Your task to perform on an android device: toggle show notifications on the lock screen Image 0: 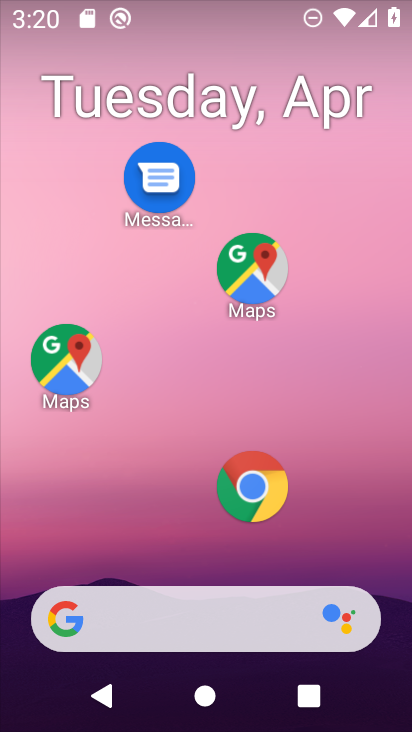
Step 0: drag from (207, 459) to (271, 238)
Your task to perform on an android device: toggle show notifications on the lock screen Image 1: 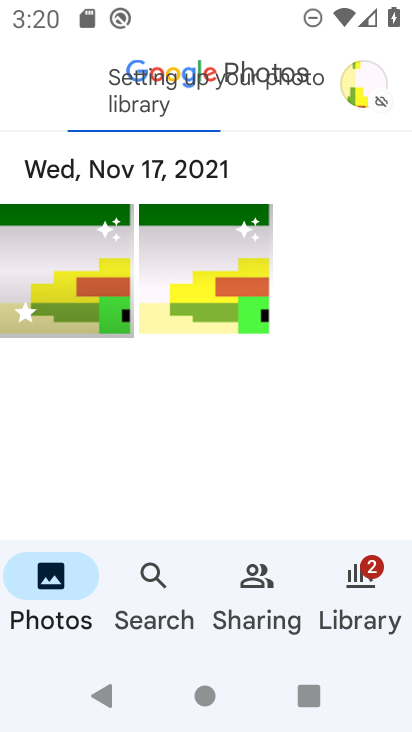
Step 1: press home button
Your task to perform on an android device: toggle show notifications on the lock screen Image 2: 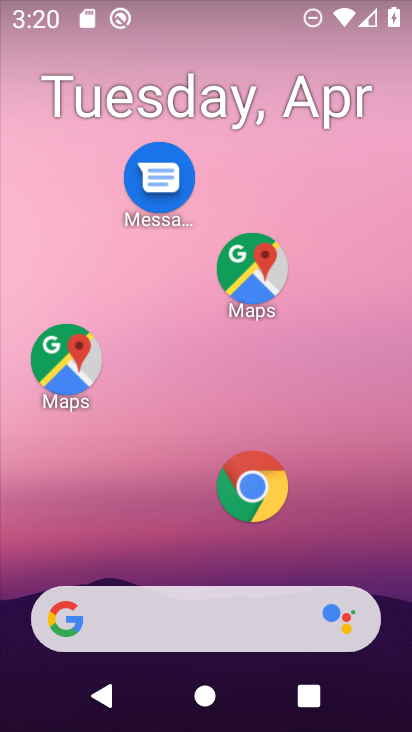
Step 2: drag from (211, 528) to (278, 113)
Your task to perform on an android device: toggle show notifications on the lock screen Image 3: 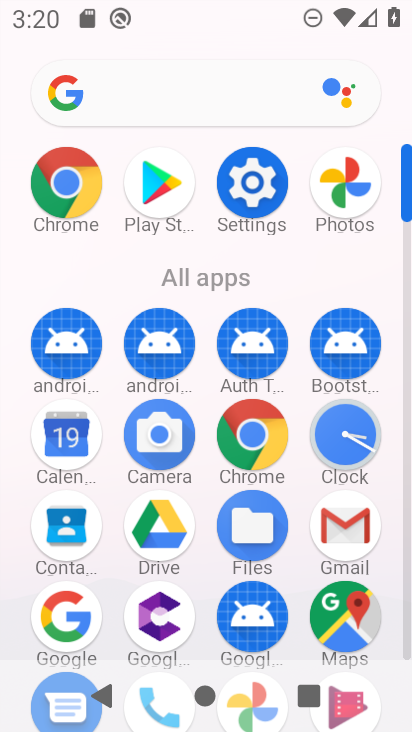
Step 3: click (262, 208)
Your task to perform on an android device: toggle show notifications on the lock screen Image 4: 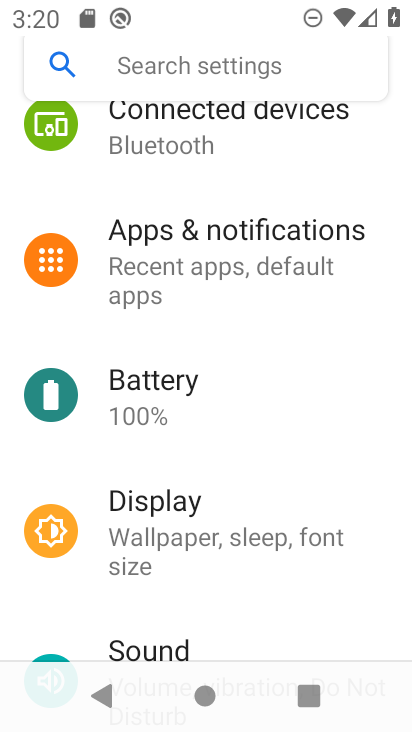
Step 4: click (235, 271)
Your task to perform on an android device: toggle show notifications on the lock screen Image 5: 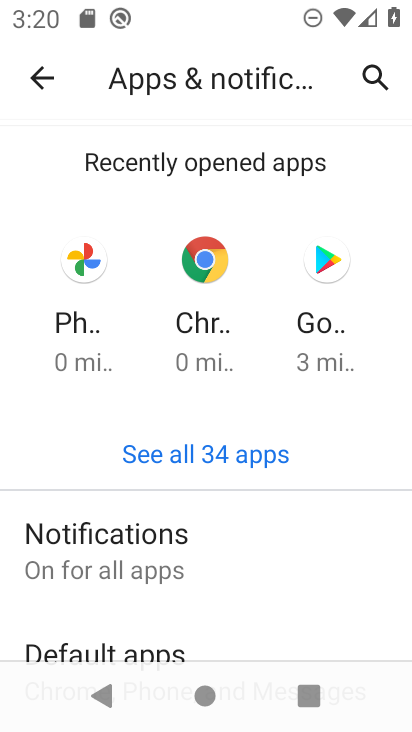
Step 5: drag from (160, 585) to (181, 304)
Your task to perform on an android device: toggle show notifications on the lock screen Image 6: 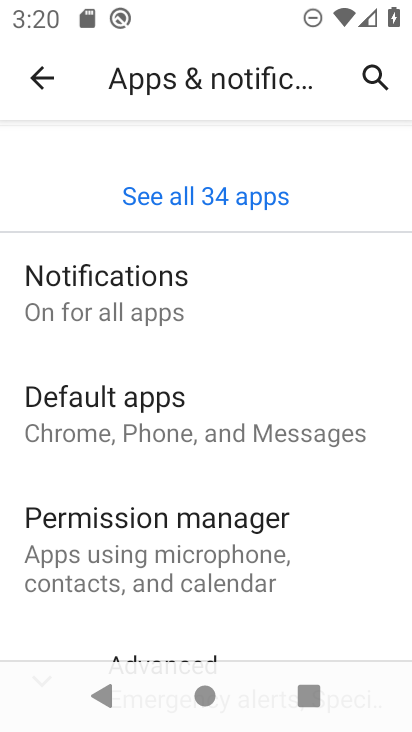
Step 6: click (195, 306)
Your task to perform on an android device: toggle show notifications on the lock screen Image 7: 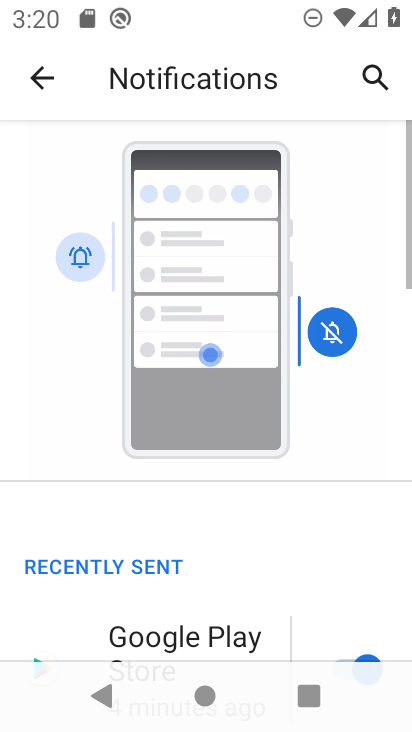
Step 7: drag from (220, 559) to (192, 108)
Your task to perform on an android device: toggle show notifications on the lock screen Image 8: 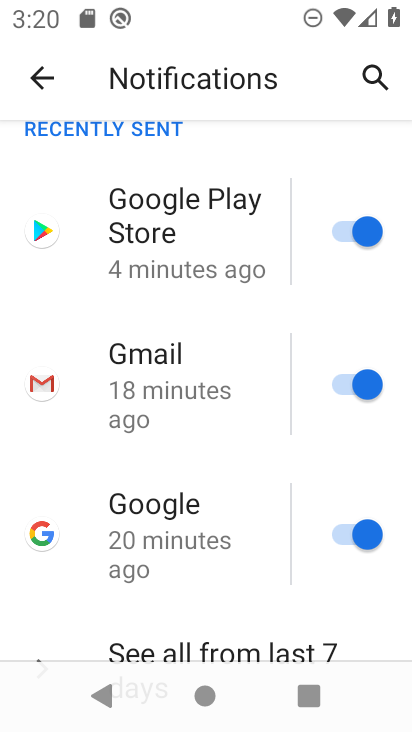
Step 8: drag from (224, 553) to (228, 115)
Your task to perform on an android device: toggle show notifications on the lock screen Image 9: 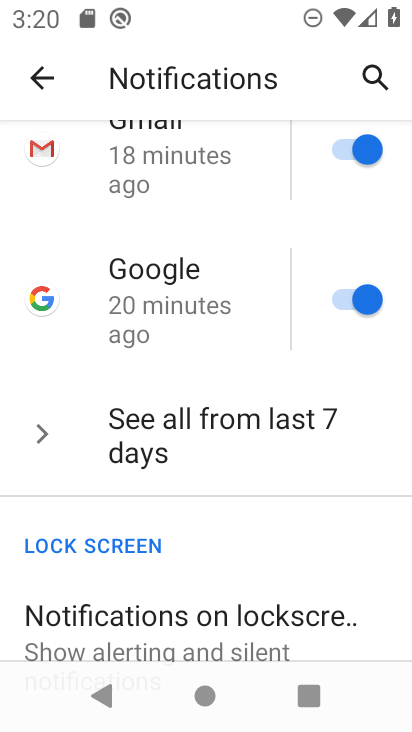
Step 9: drag from (205, 610) to (202, 268)
Your task to perform on an android device: toggle show notifications on the lock screen Image 10: 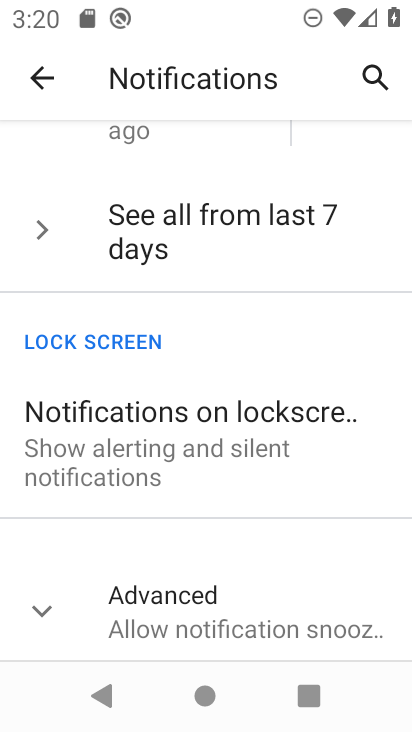
Step 10: click (198, 448)
Your task to perform on an android device: toggle show notifications on the lock screen Image 11: 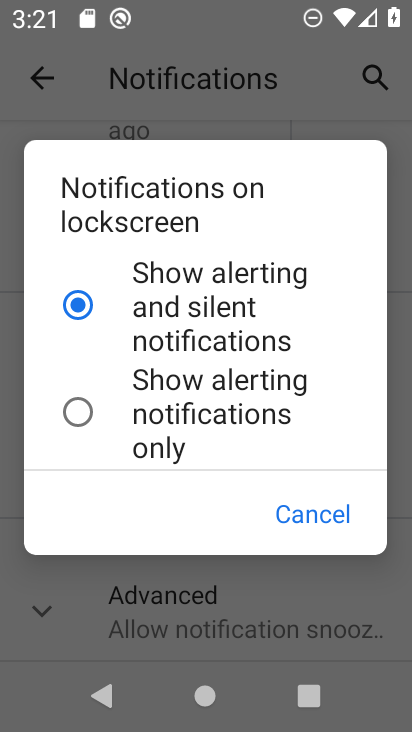
Step 11: task complete